Your task to perform on an android device: delete browsing data in the chrome app Image 0: 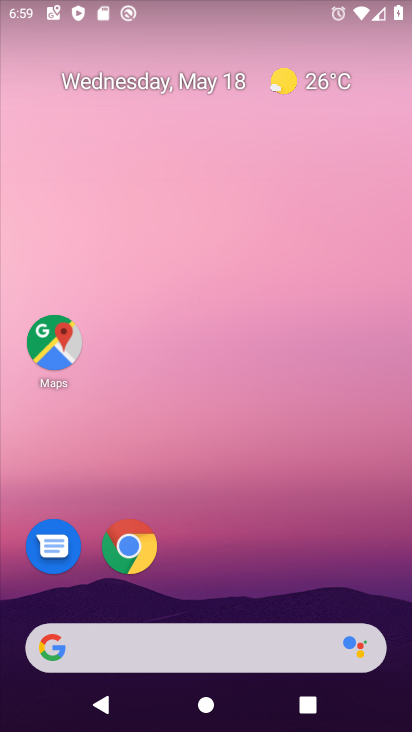
Step 0: drag from (403, 610) to (246, 95)
Your task to perform on an android device: delete browsing data in the chrome app Image 1: 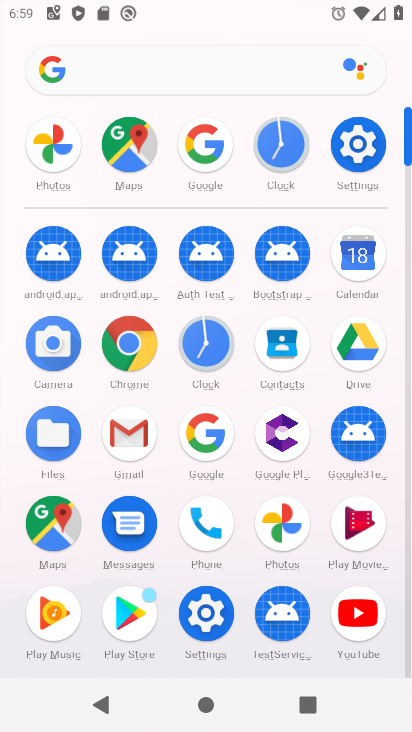
Step 1: click (134, 345)
Your task to perform on an android device: delete browsing data in the chrome app Image 2: 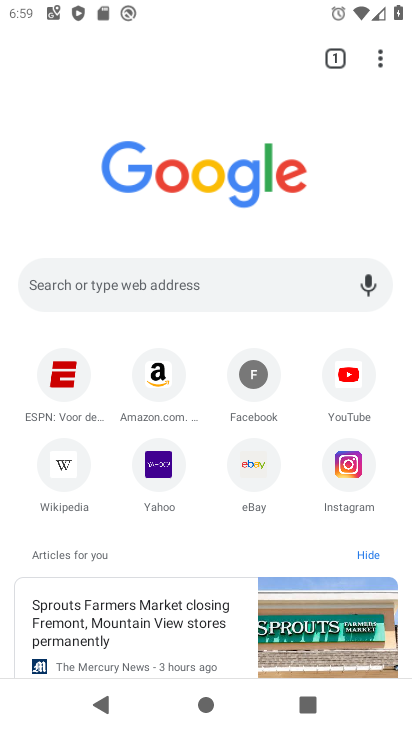
Step 2: click (381, 53)
Your task to perform on an android device: delete browsing data in the chrome app Image 3: 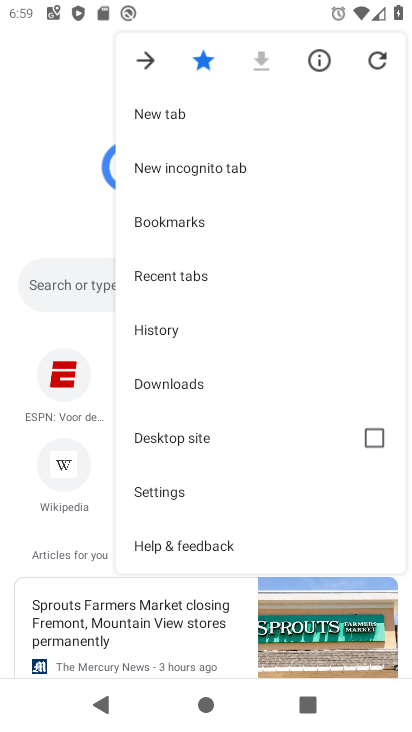
Step 3: click (196, 339)
Your task to perform on an android device: delete browsing data in the chrome app Image 4: 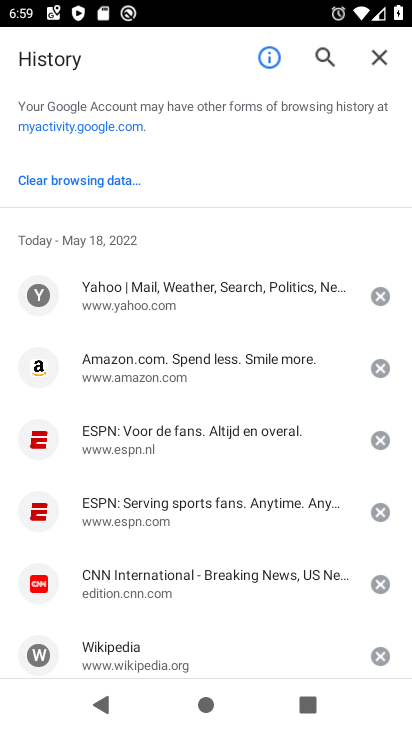
Step 4: click (73, 171)
Your task to perform on an android device: delete browsing data in the chrome app Image 5: 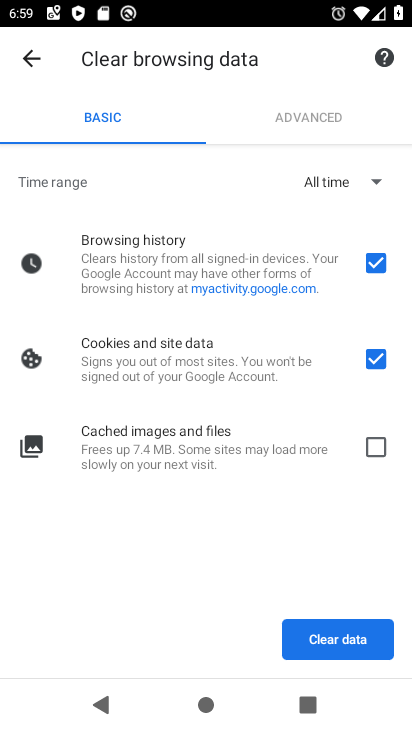
Step 5: click (362, 630)
Your task to perform on an android device: delete browsing data in the chrome app Image 6: 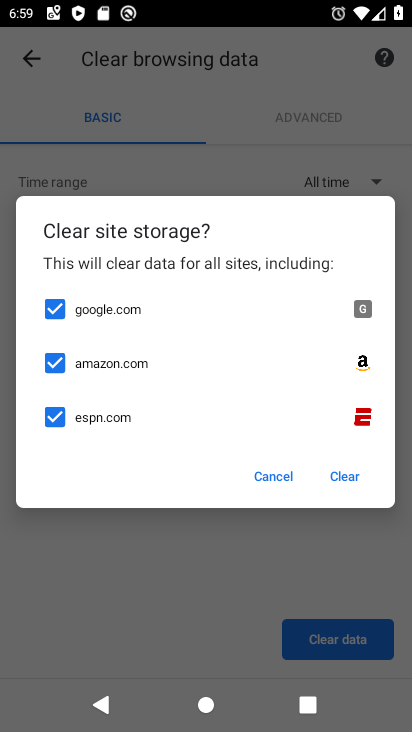
Step 6: click (347, 469)
Your task to perform on an android device: delete browsing data in the chrome app Image 7: 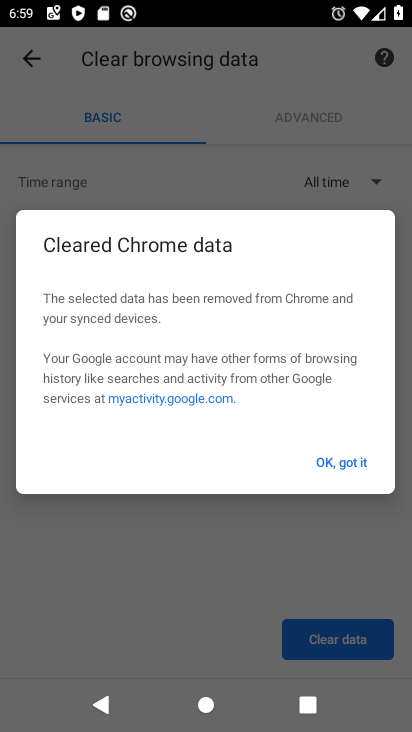
Step 7: click (347, 469)
Your task to perform on an android device: delete browsing data in the chrome app Image 8: 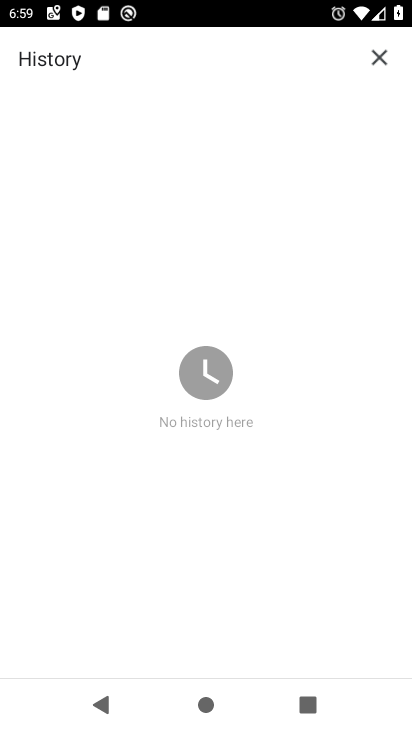
Step 8: task complete